Your task to perform on an android device: change the clock display to analog Image 0: 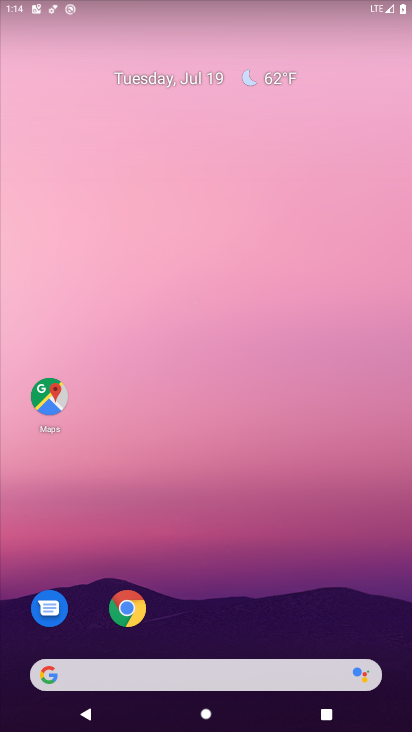
Step 0: press home button
Your task to perform on an android device: change the clock display to analog Image 1: 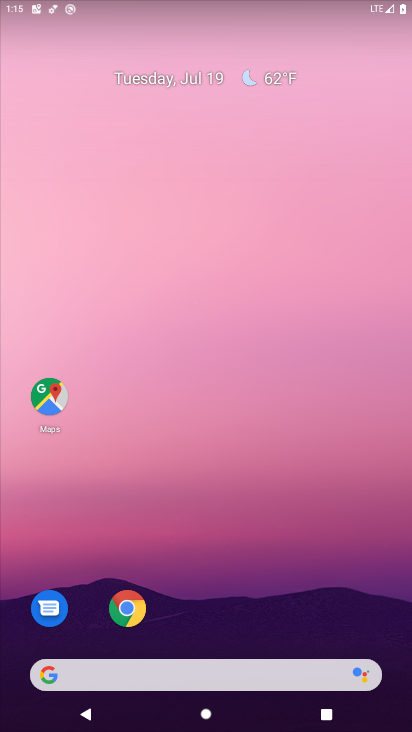
Step 1: drag from (204, 638) to (223, 17)
Your task to perform on an android device: change the clock display to analog Image 2: 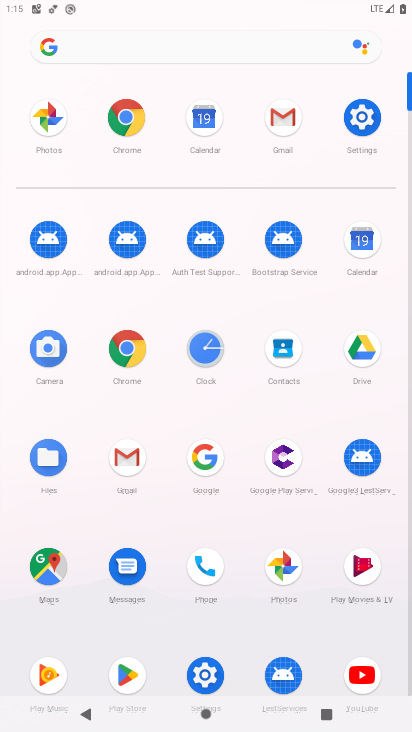
Step 2: click (200, 346)
Your task to perform on an android device: change the clock display to analog Image 3: 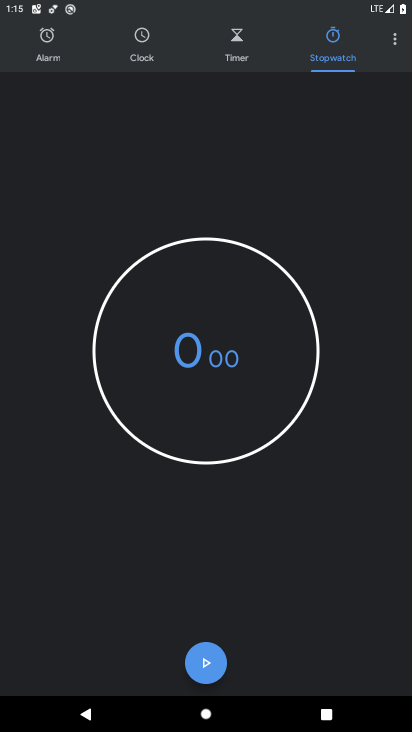
Step 3: click (387, 36)
Your task to perform on an android device: change the clock display to analog Image 4: 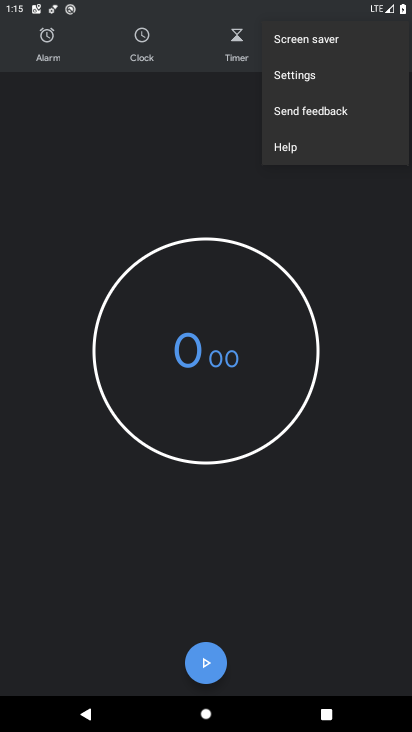
Step 4: click (316, 74)
Your task to perform on an android device: change the clock display to analog Image 5: 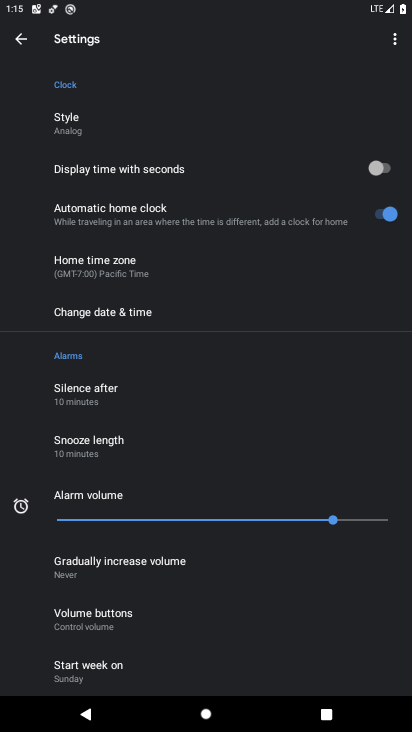
Step 5: click (100, 123)
Your task to perform on an android device: change the clock display to analog Image 6: 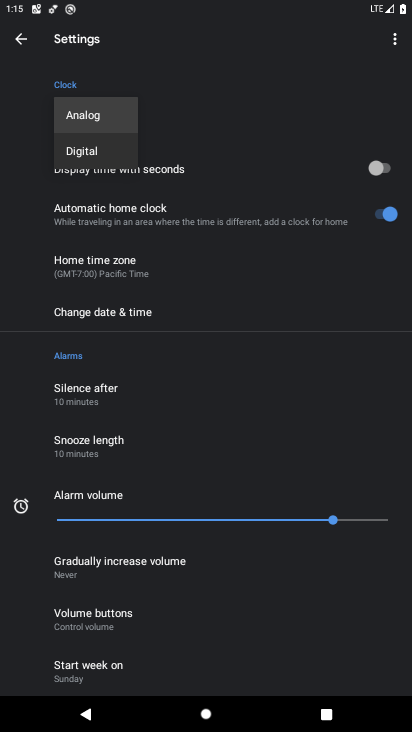
Step 6: click (101, 122)
Your task to perform on an android device: change the clock display to analog Image 7: 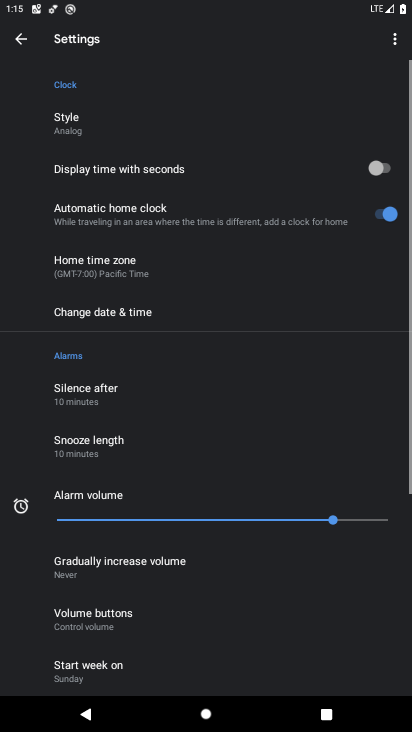
Step 7: task complete